Your task to perform on an android device: choose inbox layout in the gmail app Image 0: 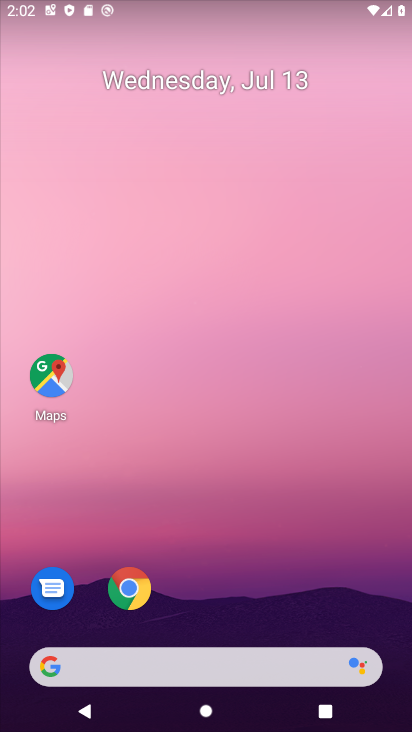
Step 0: drag from (225, 407) to (190, 122)
Your task to perform on an android device: choose inbox layout in the gmail app Image 1: 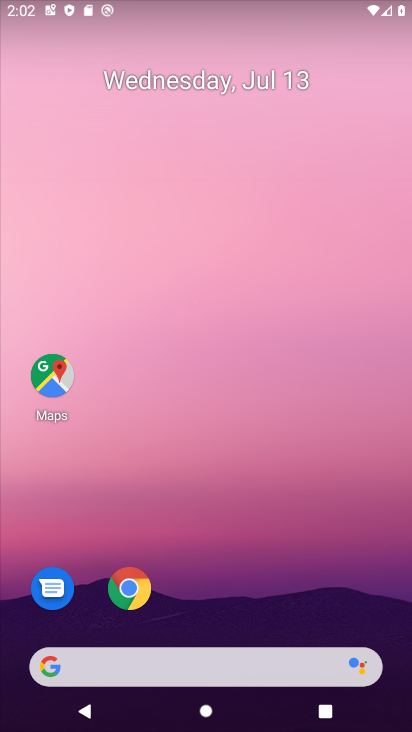
Step 1: drag from (195, 630) to (266, 9)
Your task to perform on an android device: choose inbox layout in the gmail app Image 2: 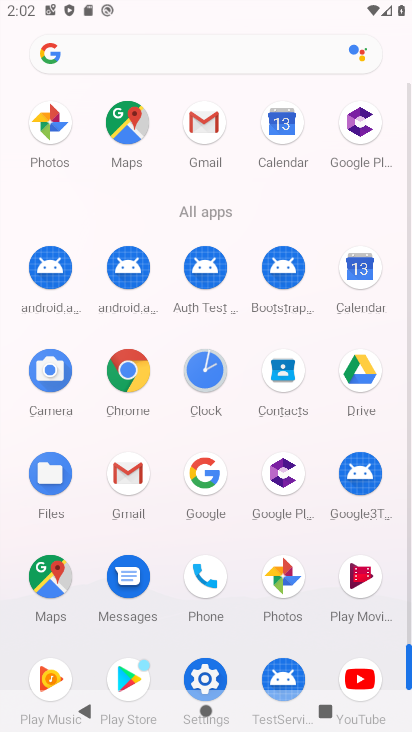
Step 2: drag from (252, 622) to (197, 168)
Your task to perform on an android device: choose inbox layout in the gmail app Image 3: 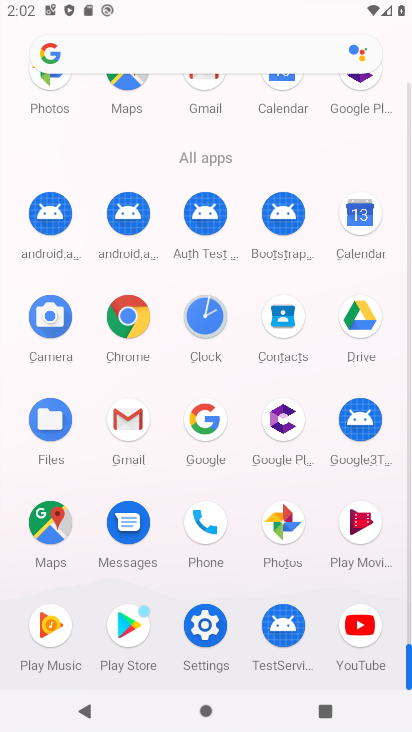
Step 3: click (125, 411)
Your task to perform on an android device: choose inbox layout in the gmail app Image 4: 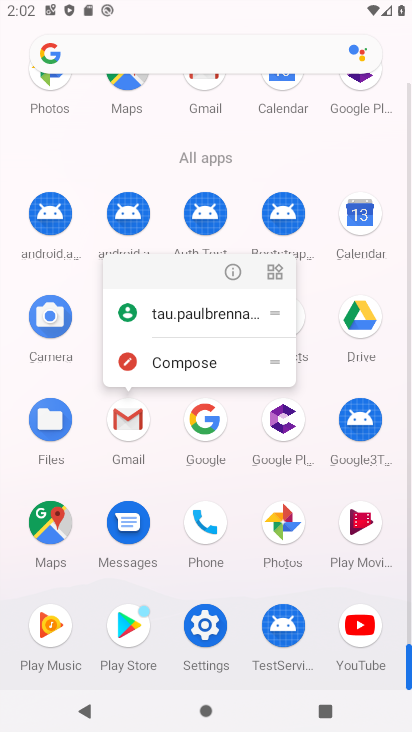
Step 4: click (232, 270)
Your task to perform on an android device: choose inbox layout in the gmail app Image 5: 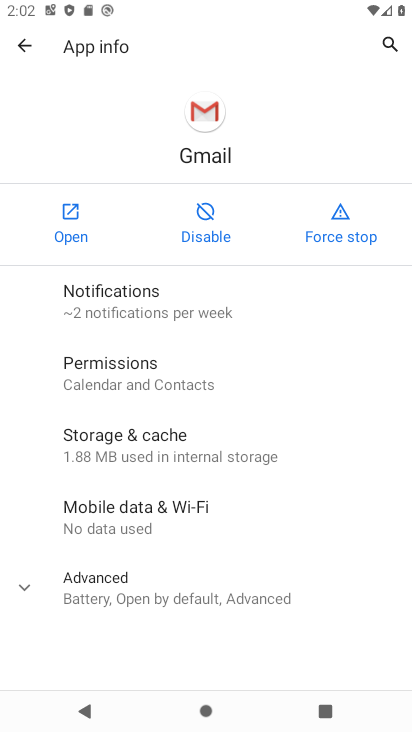
Step 5: click (78, 211)
Your task to perform on an android device: choose inbox layout in the gmail app Image 6: 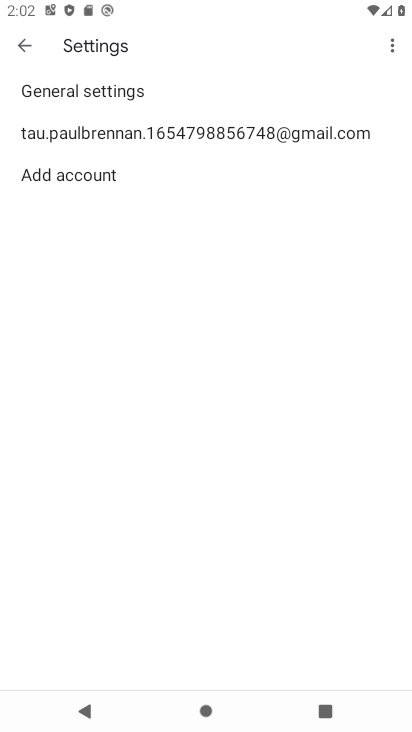
Step 6: click (25, 48)
Your task to perform on an android device: choose inbox layout in the gmail app Image 7: 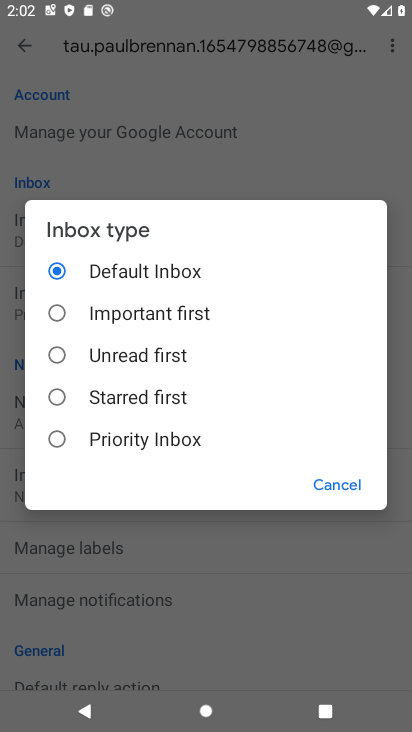
Step 7: click (325, 478)
Your task to perform on an android device: choose inbox layout in the gmail app Image 8: 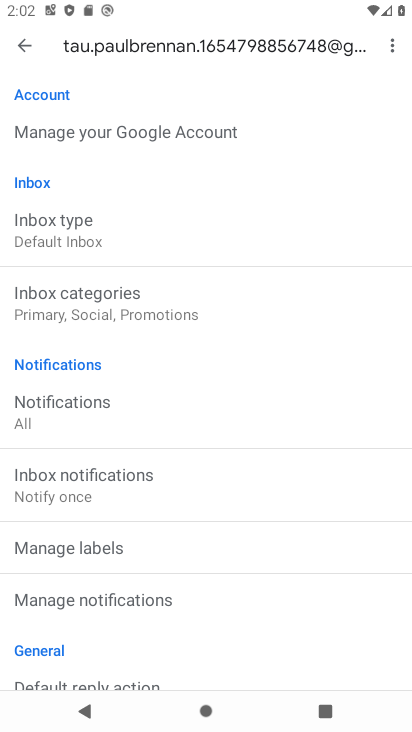
Step 8: click (24, 51)
Your task to perform on an android device: choose inbox layout in the gmail app Image 9: 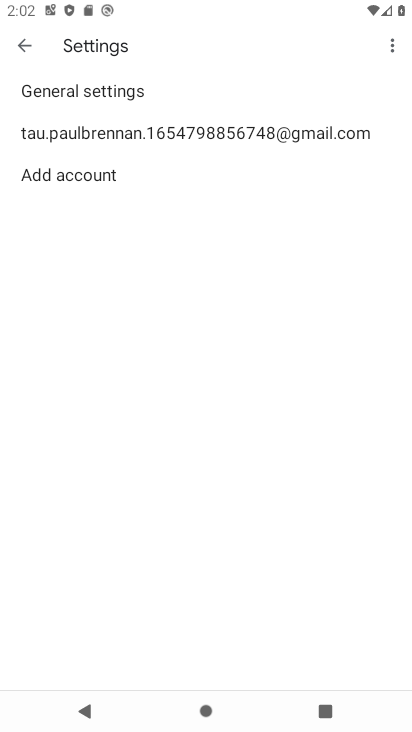
Step 9: click (24, 53)
Your task to perform on an android device: choose inbox layout in the gmail app Image 10: 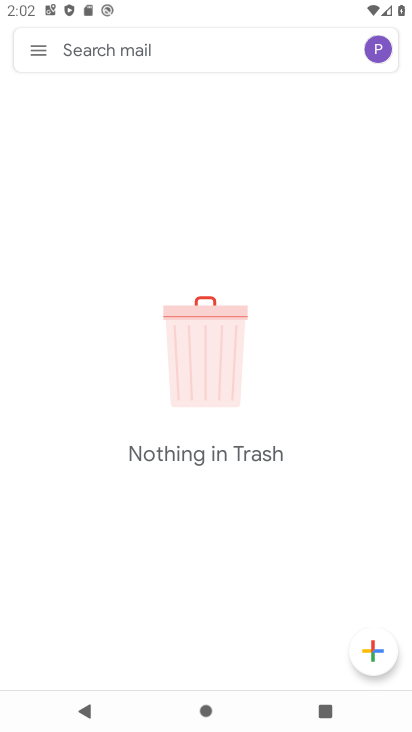
Step 10: click (45, 52)
Your task to perform on an android device: choose inbox layout in the gmail app Image 11: 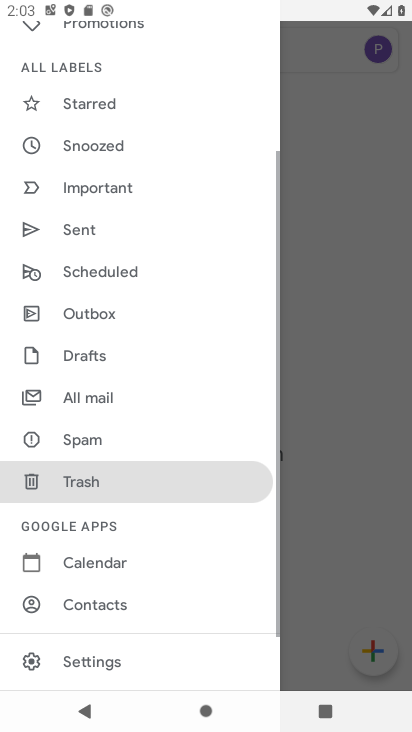
Step 11: drag from (83, 121) to (131, 644)
Your task to perform on an android device: choose inbox layout in the gmail app Image 12: 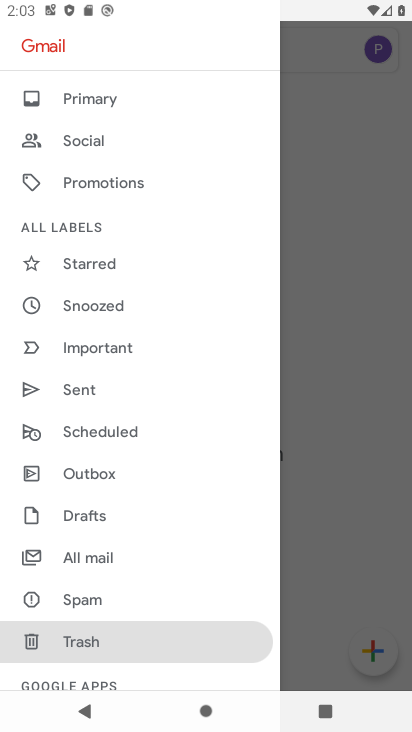
Step 12: click (71, 114)
Your task to perform on an android device: choose inbox layout in the gmail app Image 13: 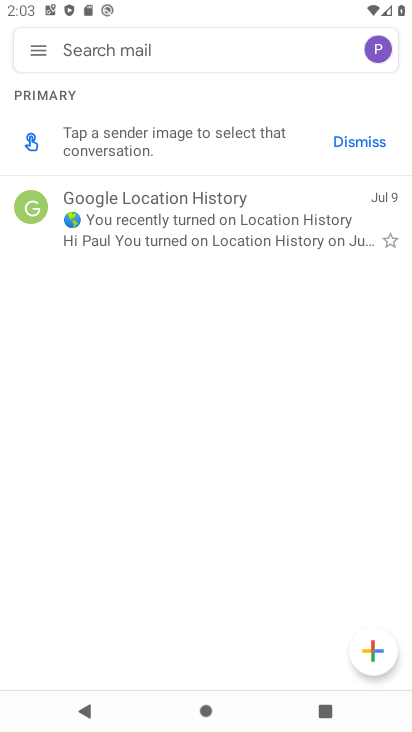
Step 13: task complete